Your task to perform on an android device: add a contact in the contacts app Image 0: 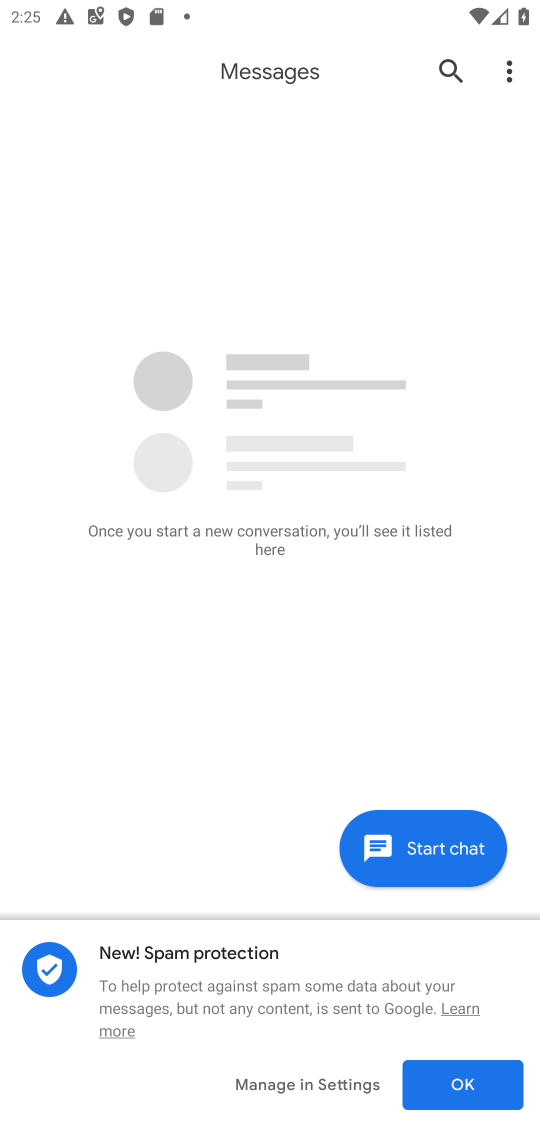
Step 0: press home button
Your task to perform on an android device: add a contact in the contacts app Image 1: 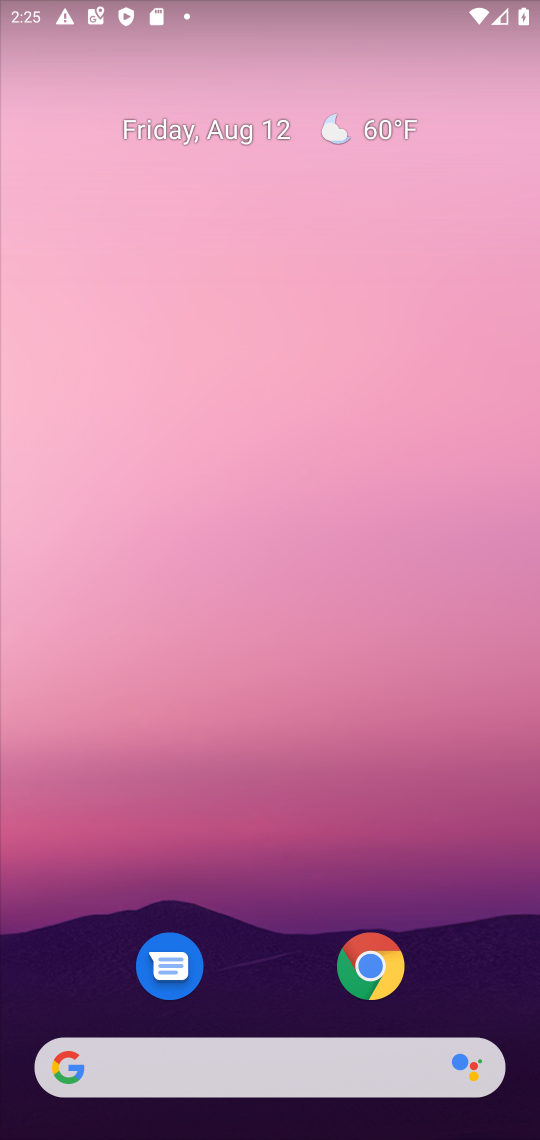
Step 1: drag from (282, 861) to (352, 18)
Your task to perform on an android device: add a contact in the contacts app Image 2: 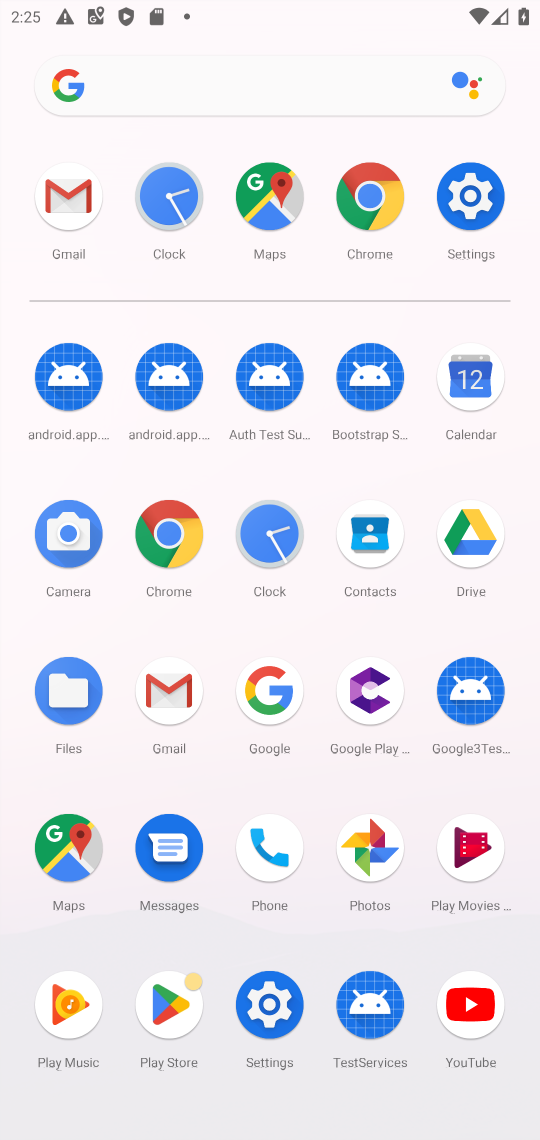
Step 2: click (361, 534)
Your task to perform on an android device: add a contact in the contacts app Image 3: 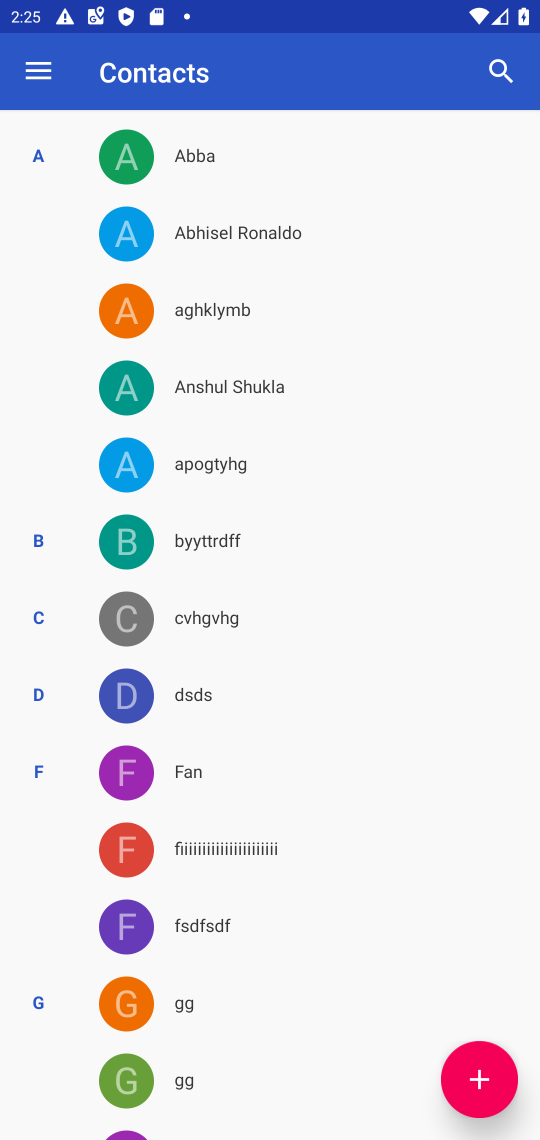
Step 3: click (470, 1083)
Your task to perform on an android device: add a contact in the contacts app Image 4: 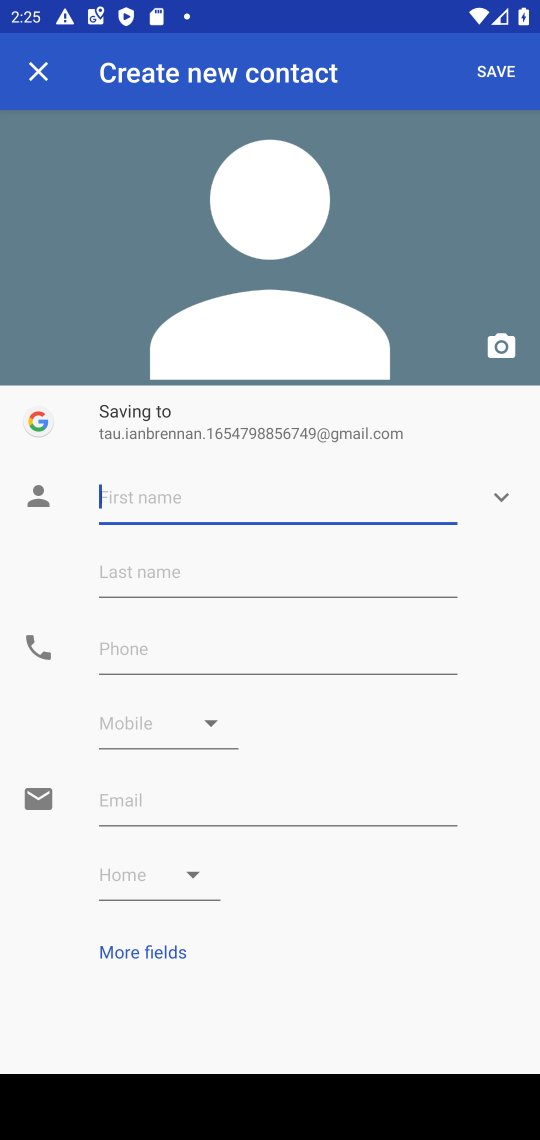
Step 4: type "asdf"
Your task to perform on an android device: add a contact in the contacts app Image 5: 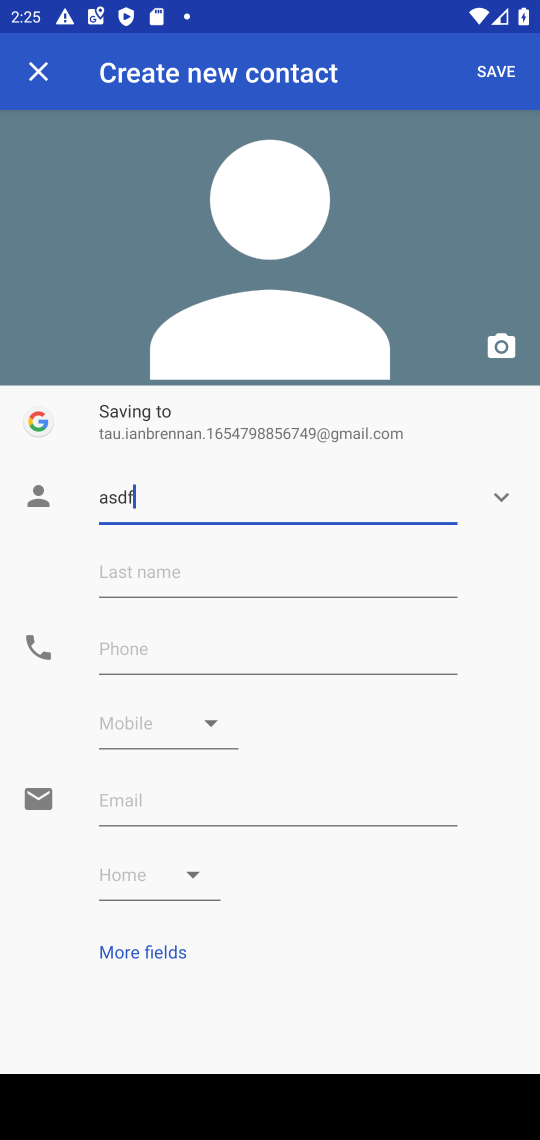
Step 5: click (513, 66)
Your task to perform on an android device: add a contact in the contacts app Image 6: 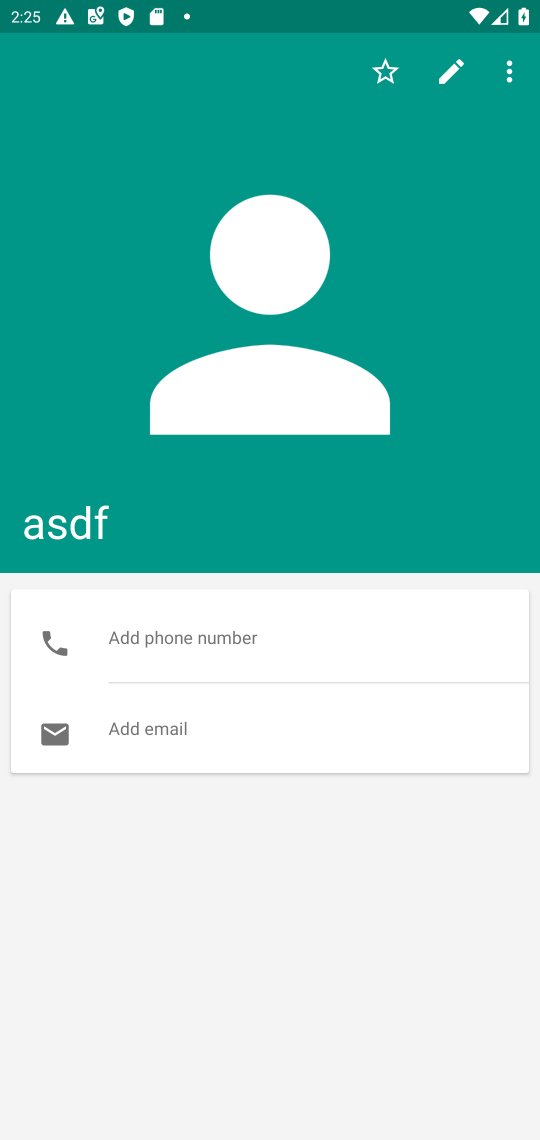
Step 6: task complete